Your task to perform on an android device: Go to notification settings Image 0: 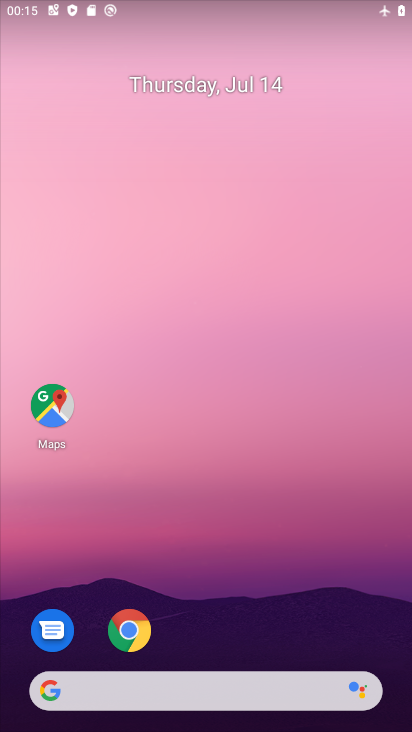
Step 0: drag from (357, 631) to (378, 192)
Your task to perform on an android device: Go to notification settings Image 1: 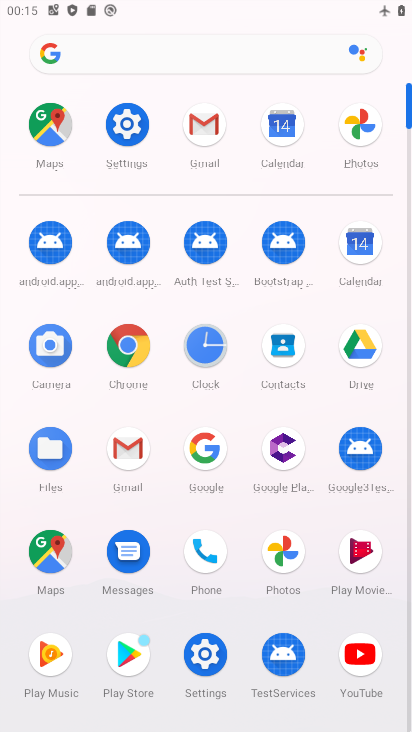
Step 1: click (125, 134)
Your task to perform on an android device: Go to notification settings Image 2: 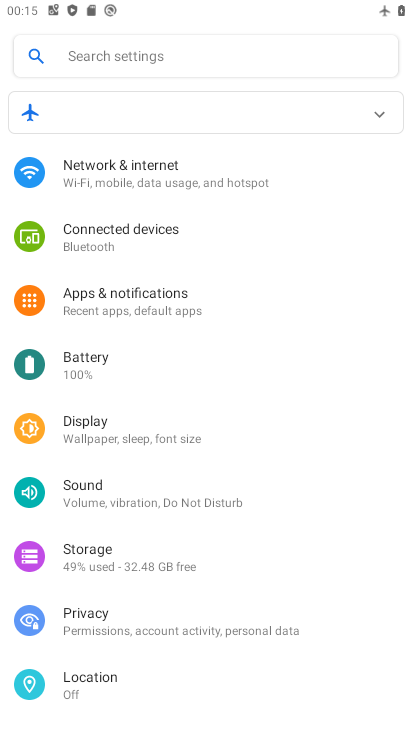
Step 2: drag from (317, 473) to (320, 413)
Your task to perform on an android device: Go to notification settings Image 3: 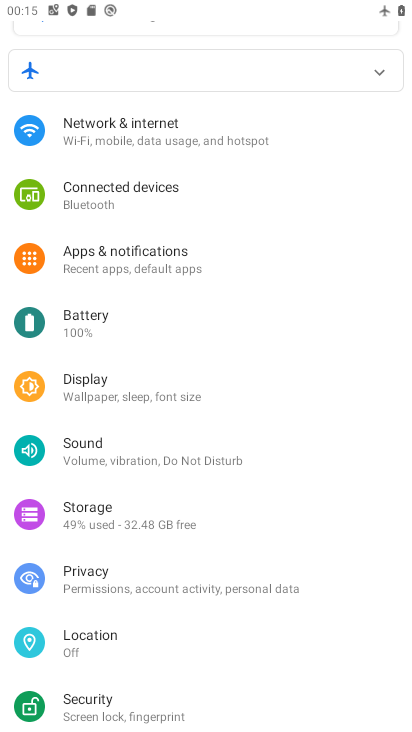
Step 3: drag from (318, 528) to (326, 457)
Your task to perform on an android device: Go to notification settings Image 4: 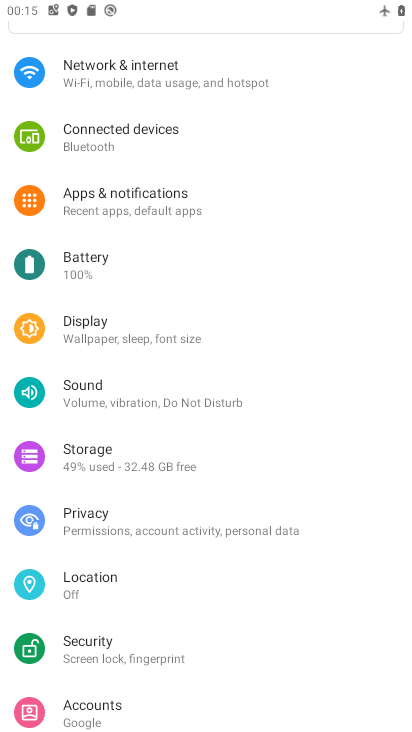
Step 4: drag from (343, 550) to (351, 479)
Your task to perform on an android device: Go to notification settings Image 5: 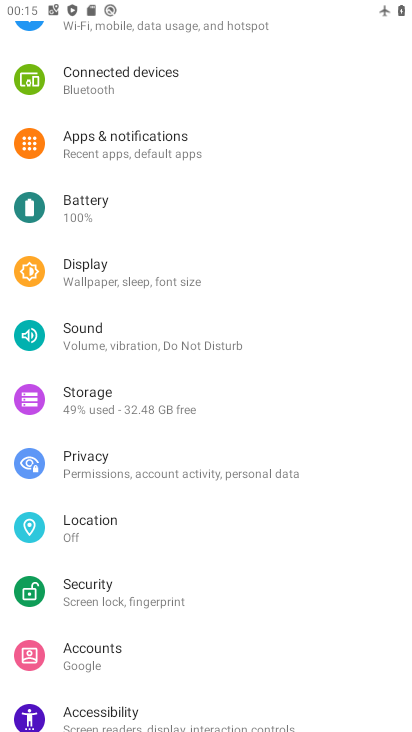
Step 5: drag from (349, 571) to (348, 495)
Your task to perform on an android device: Go to notification settings Image 6: 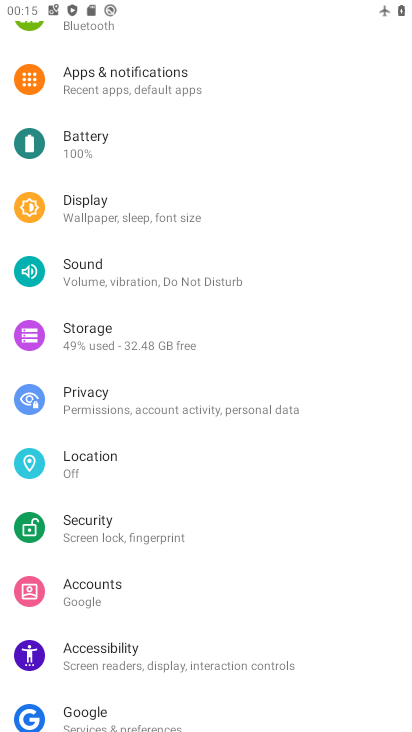
Step 6: drag from (340, 564) to (340, 486)
Your task to perform on an android device: Go to notification settings Image 7: 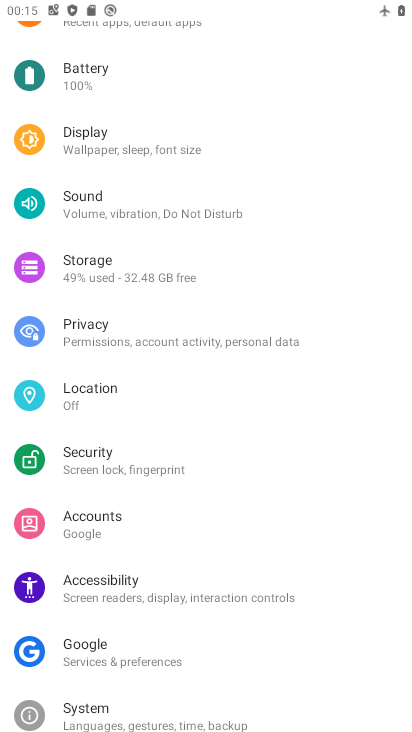
Step 7: drag from (332, 566) to (332, 488)
Your task to perform on an android device: Go to notification settings Image 8: 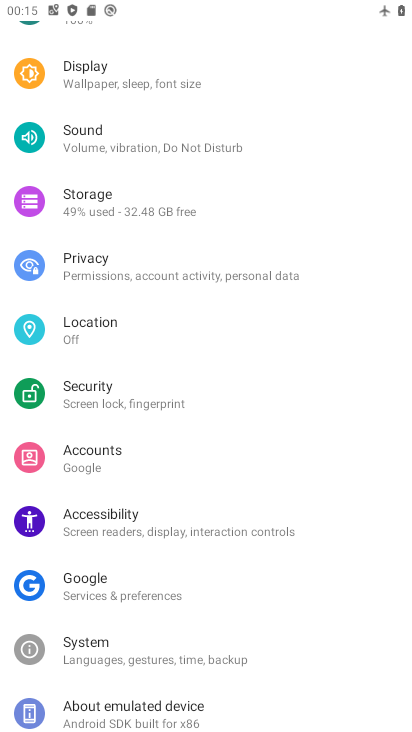
Step 8: drag from (320, 572) to (322, 502)
Your task to perform on an android device: Go to notification settings Image 9: 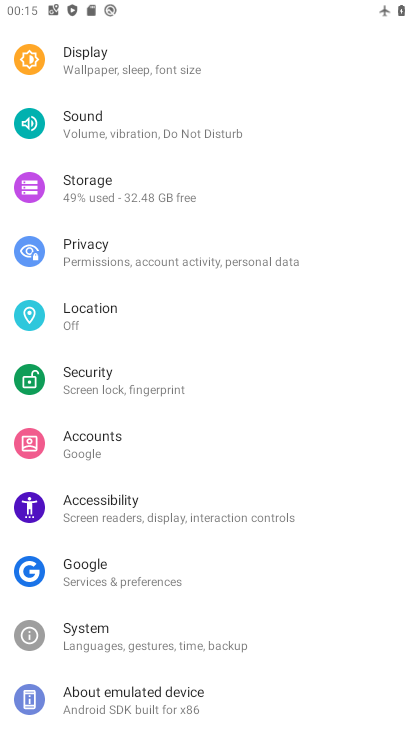
Step 9: drag from (310, 395) to (299, 483)
Your task to perform on an android device: Go to notification settings Image 10: 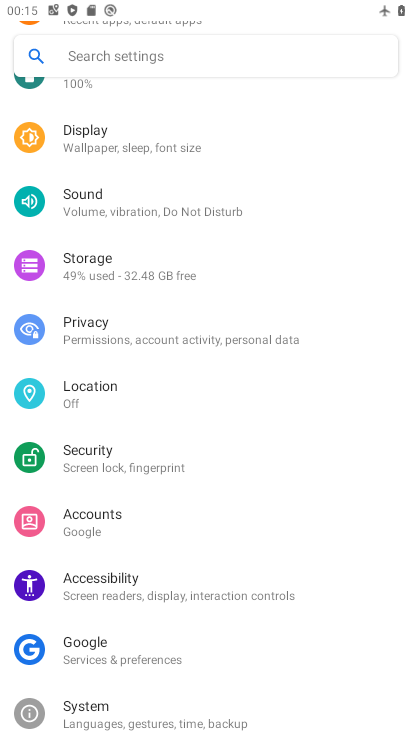
Step 10: drag from (313, 401) to (311, 464)
Your task to perform on an android device: Go to notification settings Image 11: 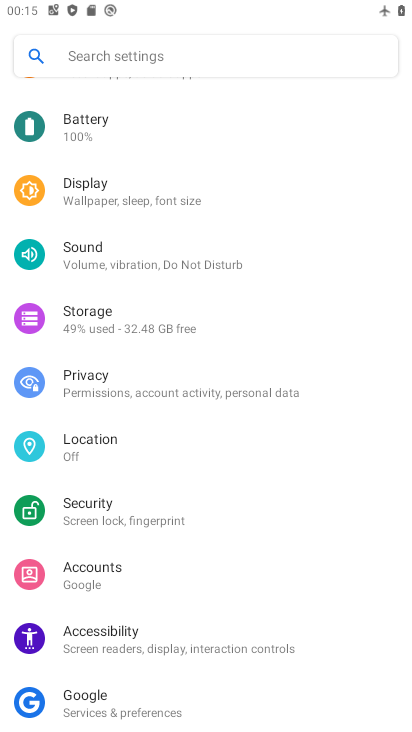
Step 11: drag from (352, 389) to (354, 461)
Your task to perform on an android device: Go to notification settings Image 12: 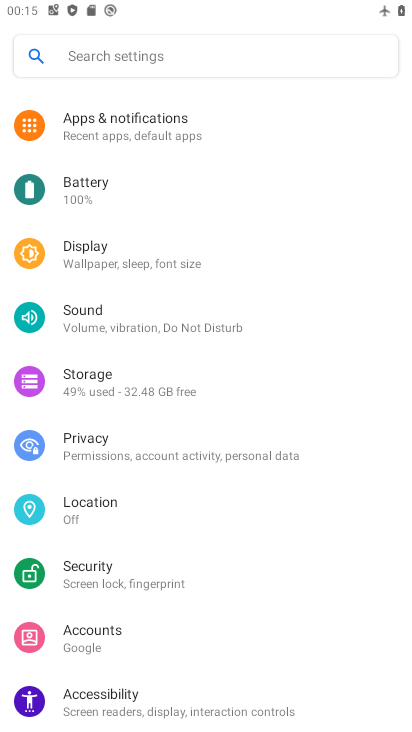
Step 12: drag from (354, 388) to (349, 456)
Your task to perform on an android device: Go to notification settings Image 13: 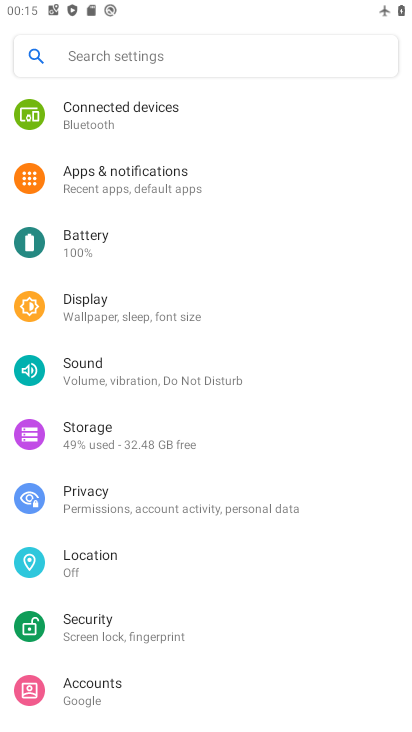
Step 13: drag from (351, 387) to (351, 463)
Your task to perform on an android device: Go to notification settings Image 14: 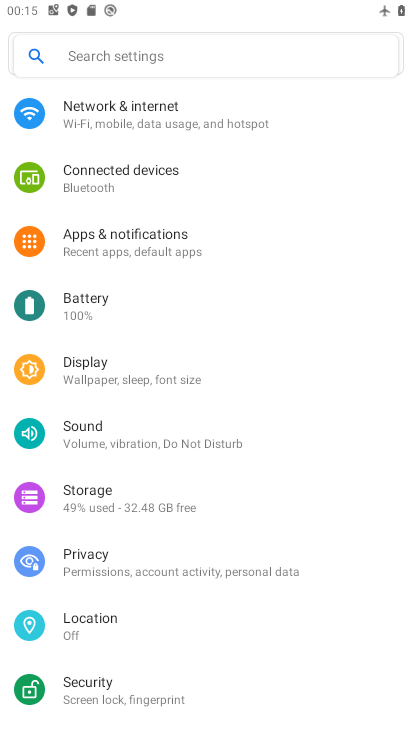
Step 14: drag from (336, 369) to (335, 466)
Your task to perform on an android device: Go to notification settings Image 15: 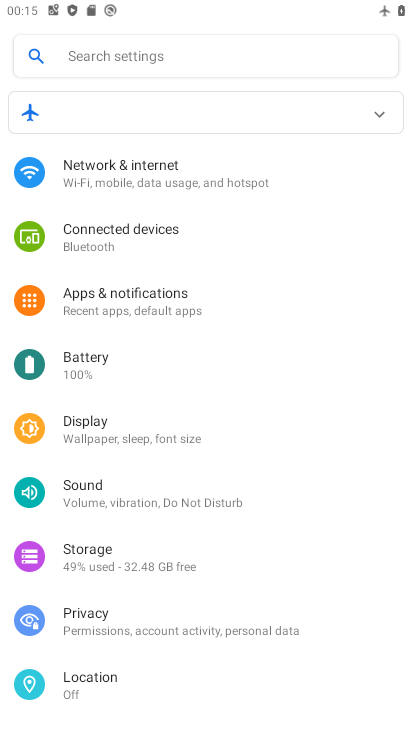
Step 15: click (205, 309)
Your task to perform on an android device: Go to notification settings Image 16: 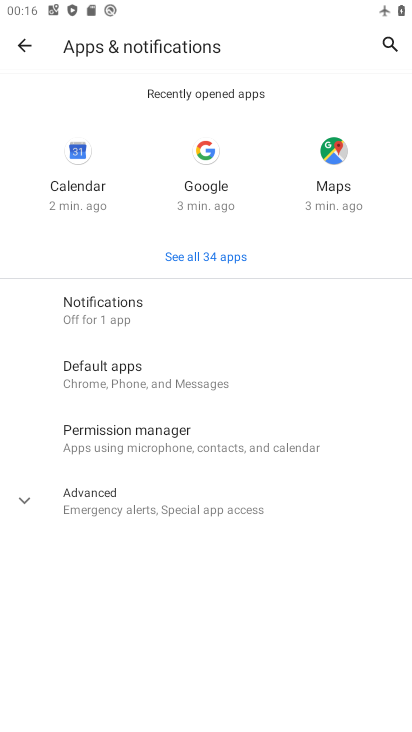
Step 16: click (204, 308)
Your task to perform on an android device: Go to notification settings Image 17: 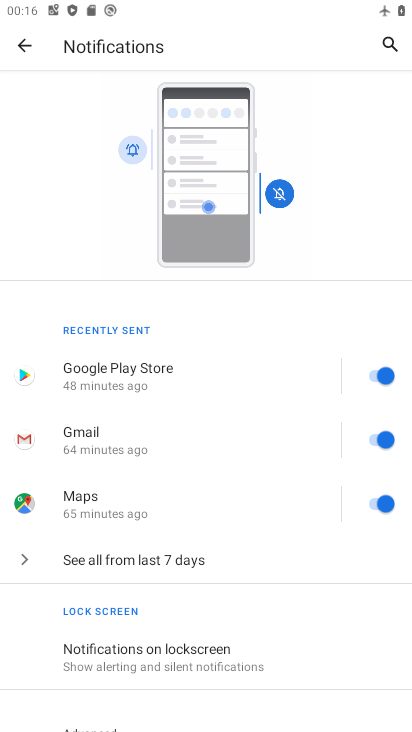
Step 17: task complete